Your task to perform on an android device: stop showing notifications on the lock screen Image 0: 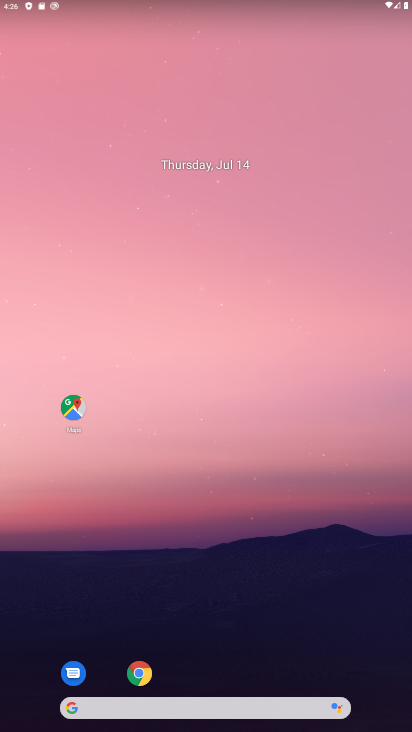
Step 0: drag from (212, 526) to (279, 171)
Your task to perform on an android device: stop showing notifications on the lock screen Image 1: 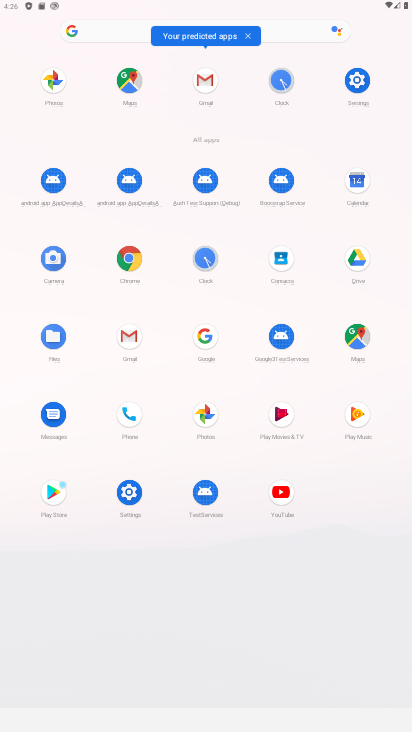
Step 1: click (129, 492)
Your task to perform on an android device: stop showing notifications on the lock screen Image 2: 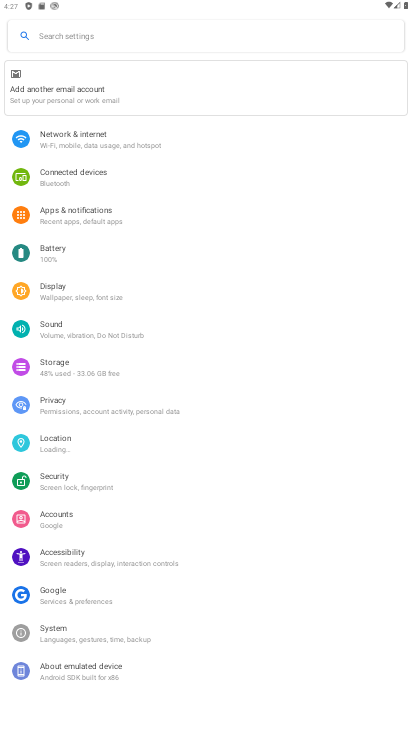
Step 2: click (116, 224)
Your task to perform on an android device: stop showing notifications on the lock screen Image 3: 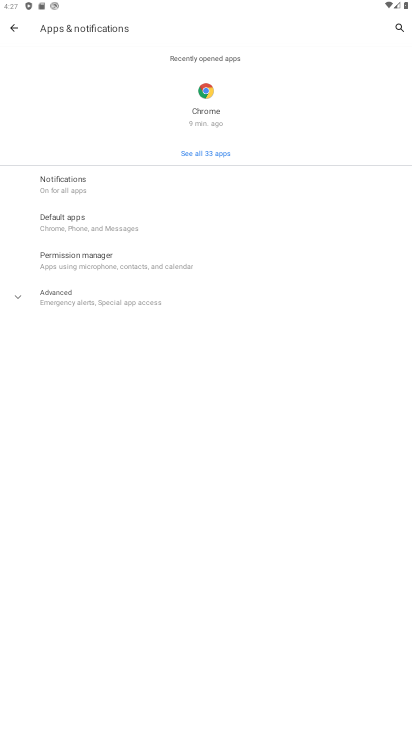
Step 3: click (112, 185)
Your task to perform on an android device: stop showing notifications on the lock screen Image 4: 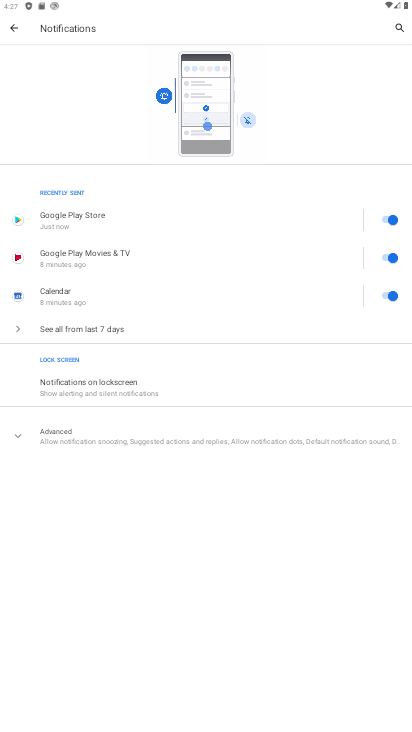
Step 4: click (143, 391)
Your task to perform on an android device: stop showing notifications on the lock screen Image 5: 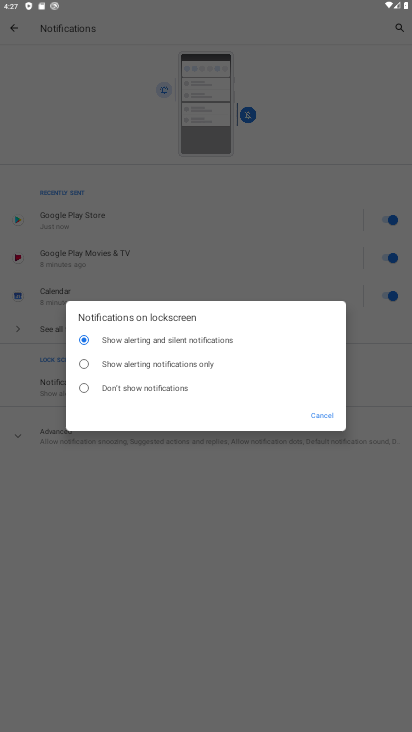
Step 5: click (149, 391)
Your task to perform on an android device: stop showing notifications on the lock screen Image 6: 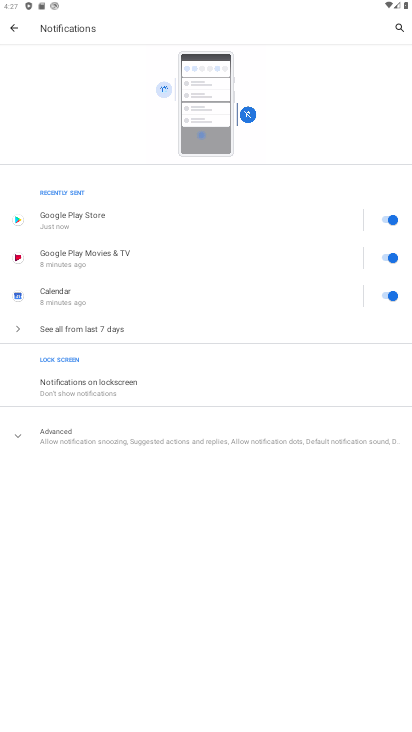
Step 6: click (149, 391)
Your task to perform on an android device: stop showing notifications on the lock screen Image 7: 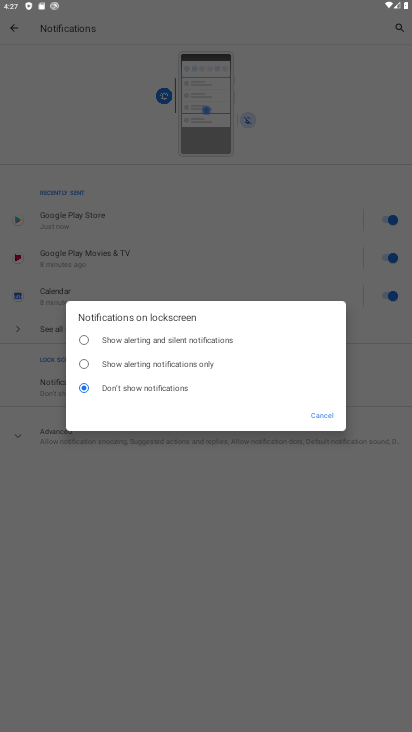
Step 7: task complete